Your task to perform on an android device: manage bookmarks in the chrome app Image 0: 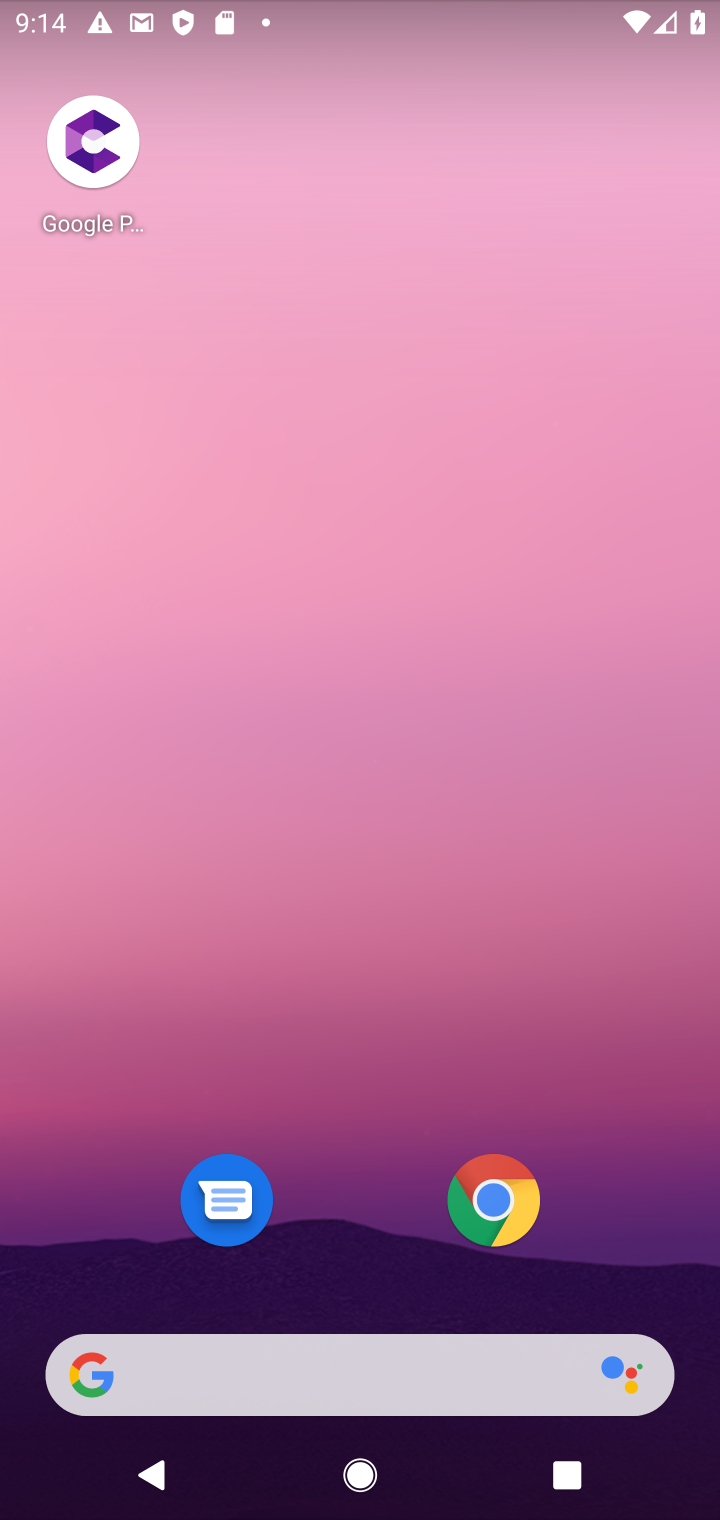
Step 0: drag from (565, 1354) to (507, 374)
Your task to perform on an android device: manage bookmarks in the chrome app Image 1: 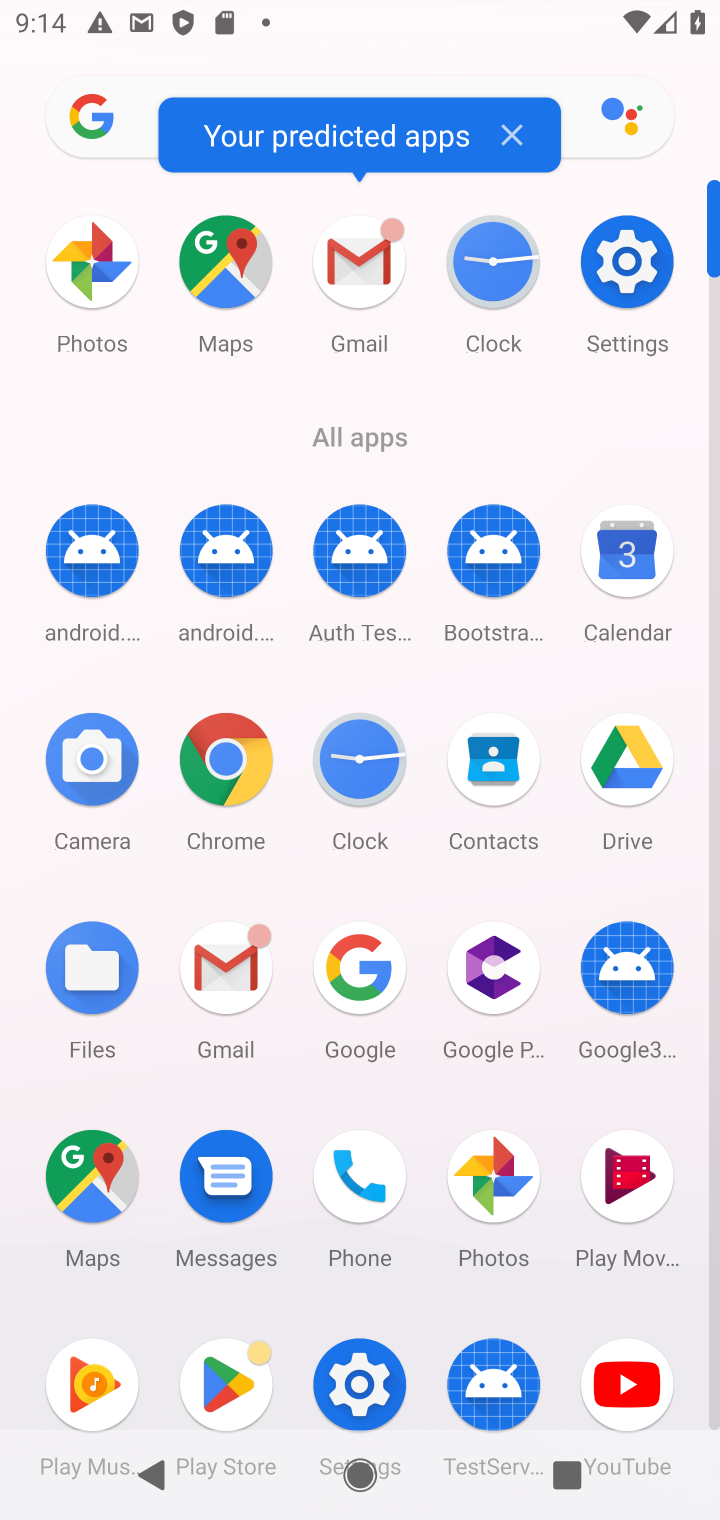
Step 1: click (230, 761)
Your task to perform on an android device: manage bookmarks in the chrome app Image 2: 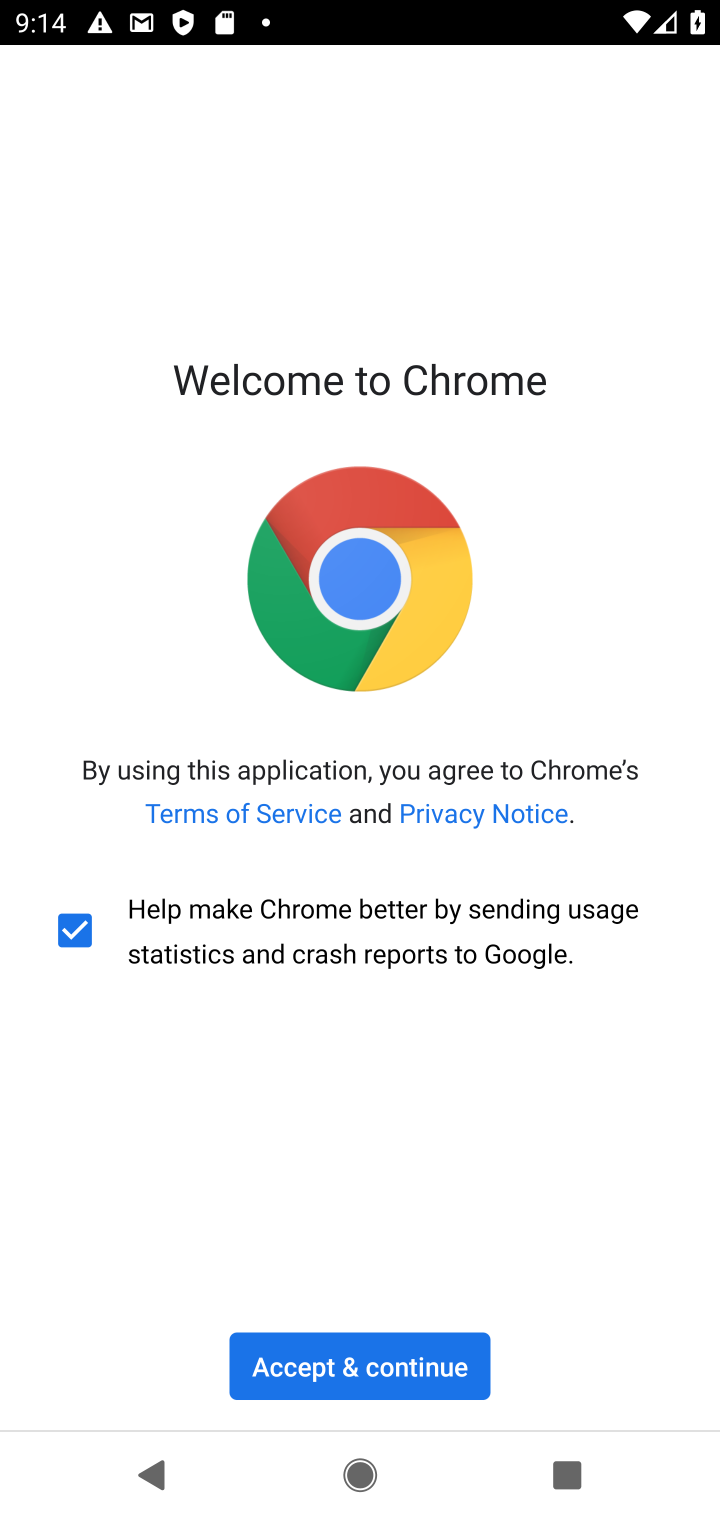
Step 2: click (321, 1351)
Your task to perform on an android device: manage bookmarks in the chrome app Image 3: 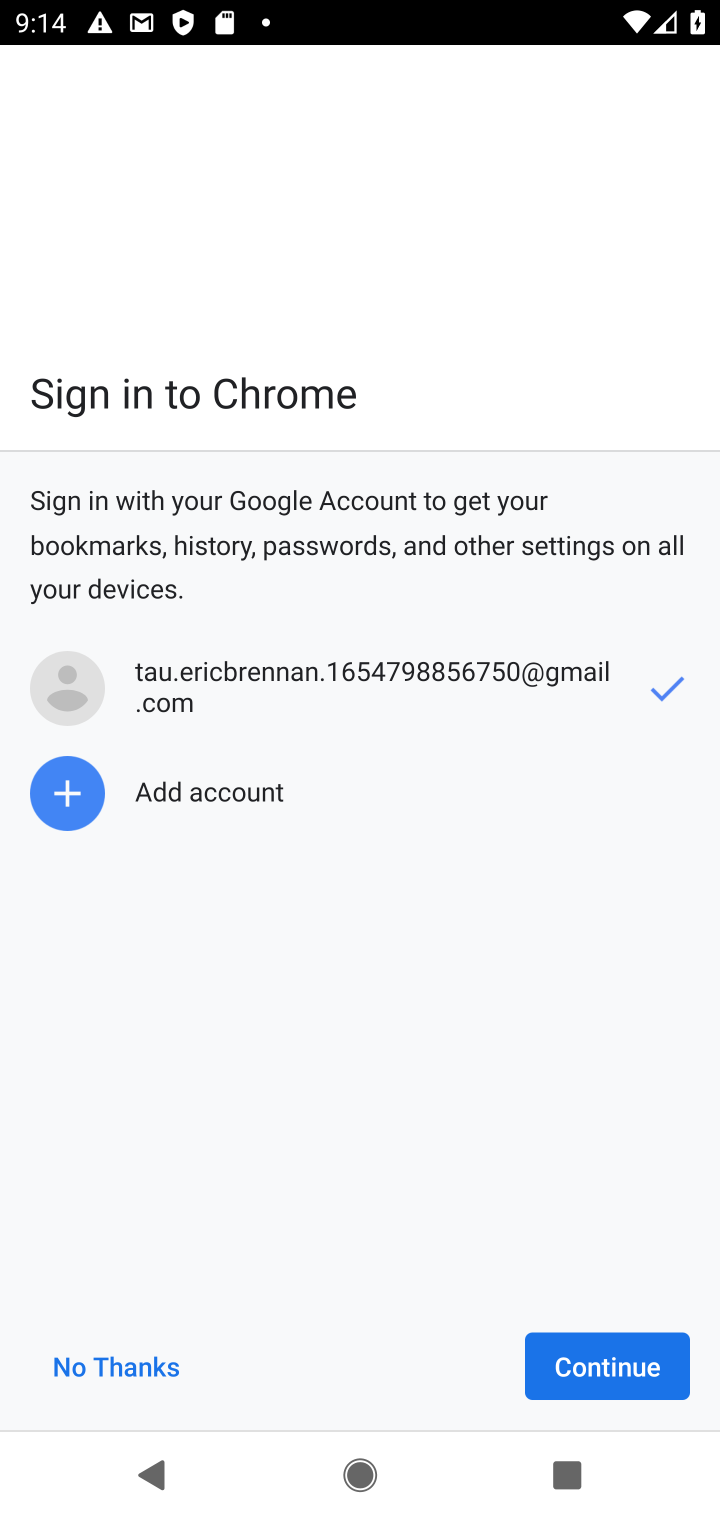
Step 3: click (81, 1365)
Your task to perform on an android device: manage bookmarks in the chrome app Image 4: 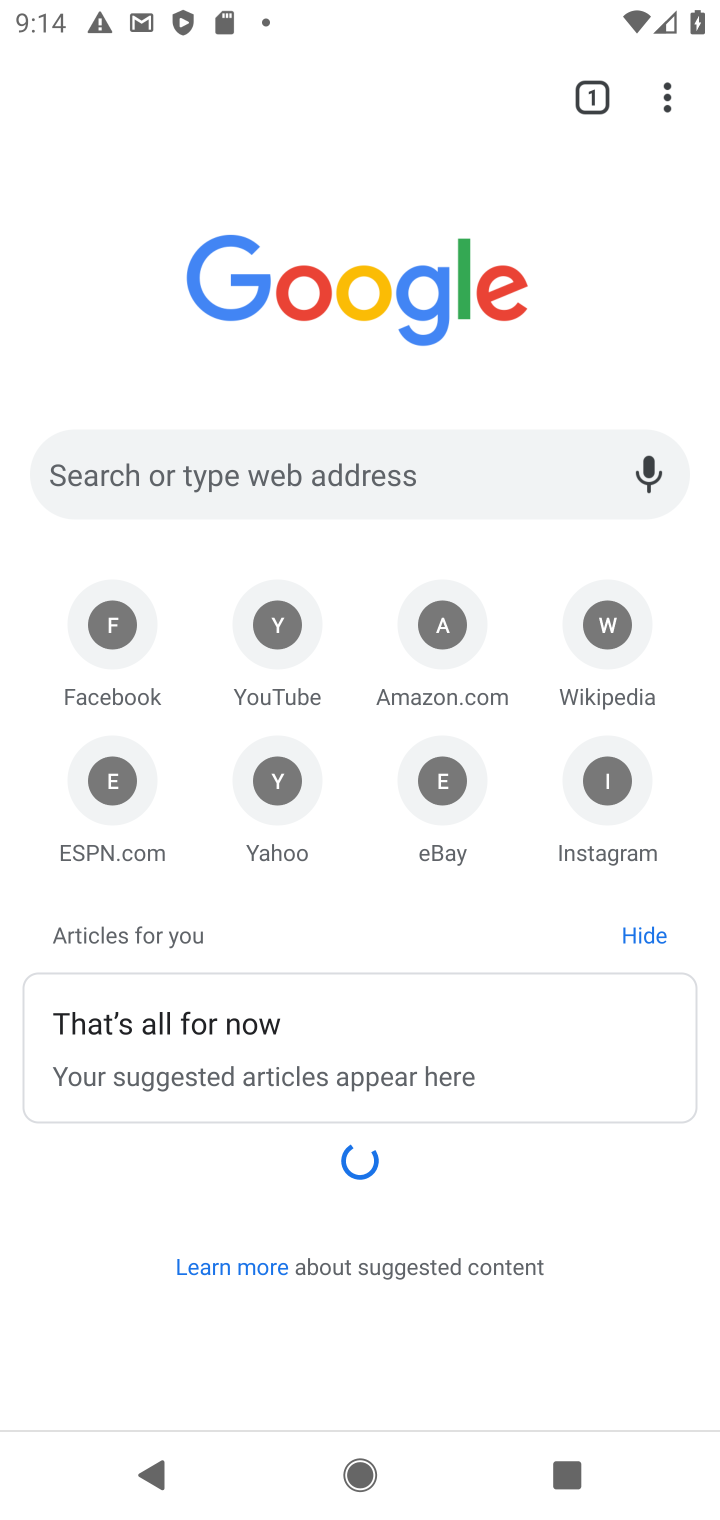
Step 4: click (673, 90)
Your task to perform on an android device: manage bookmarks in the chrome app Image 5: 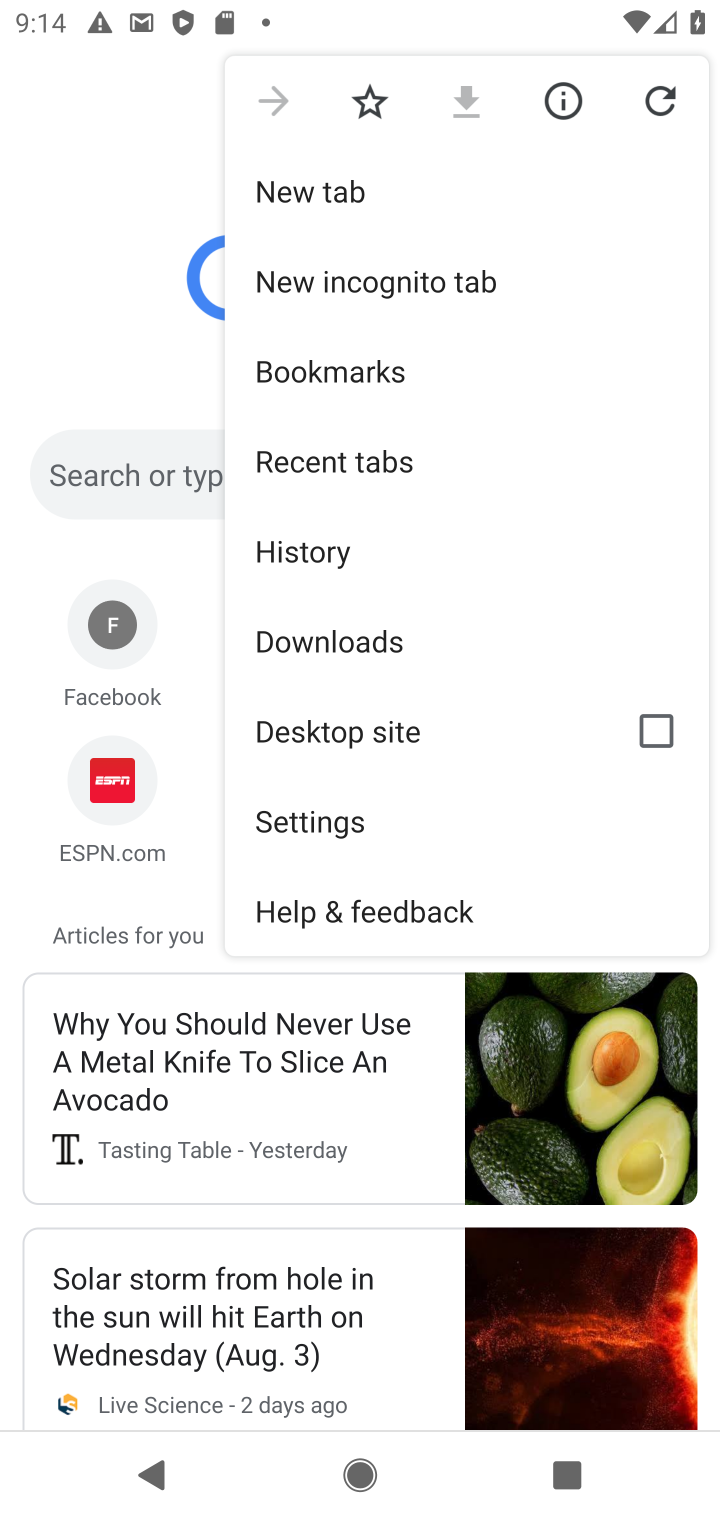
Step 5: click (409, 356)
Your task to perform on an android device: manage bookmarks in the chrome app Image 6: 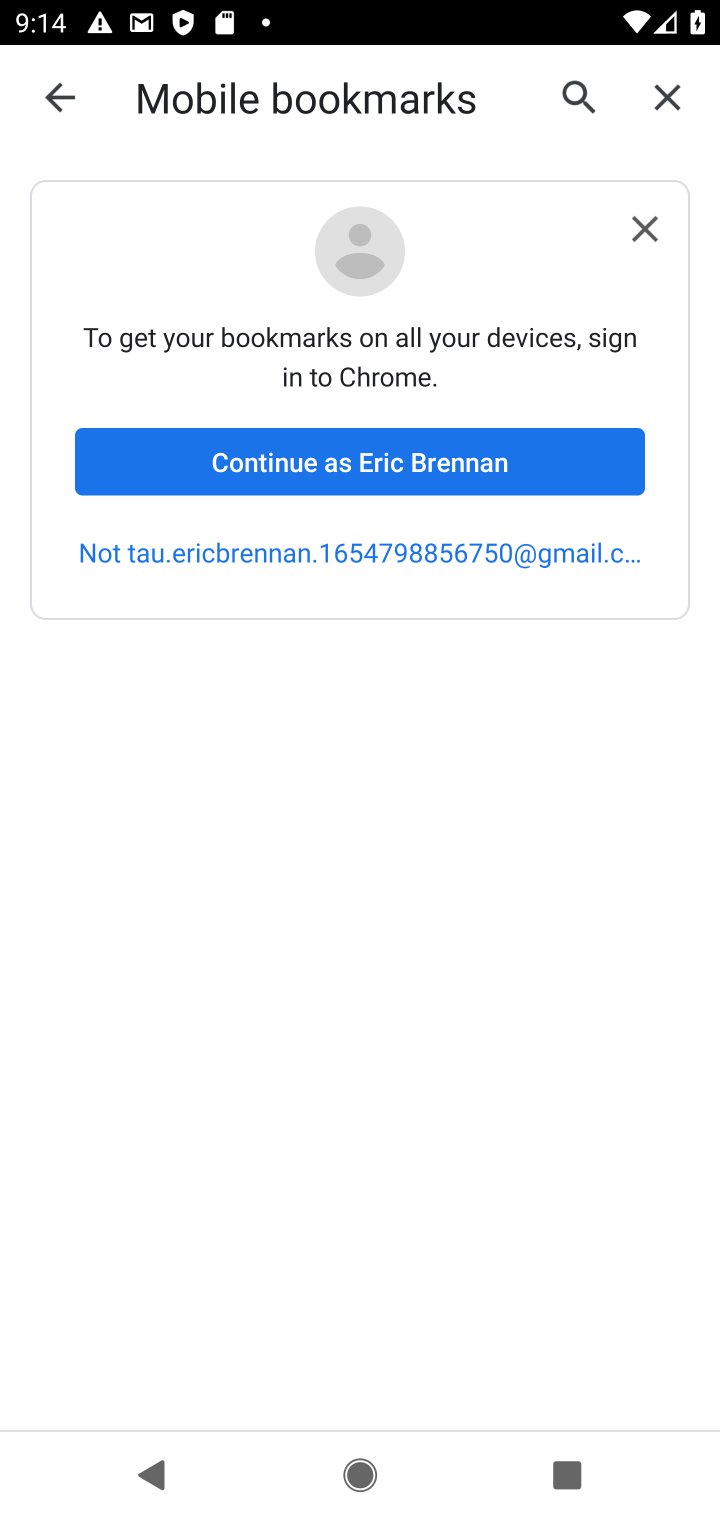
Step 6: task complete